Your task to perform on an android device: toggle notifications settings in the gmail app Image 0: 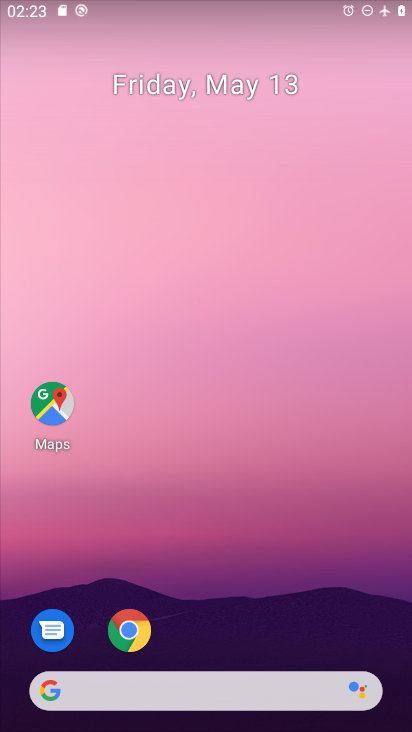
Step 0: drag from (290, 716) to (311, 170)
Your task to perform on an android device: toggle notifications settings in the gmail app Image 1: 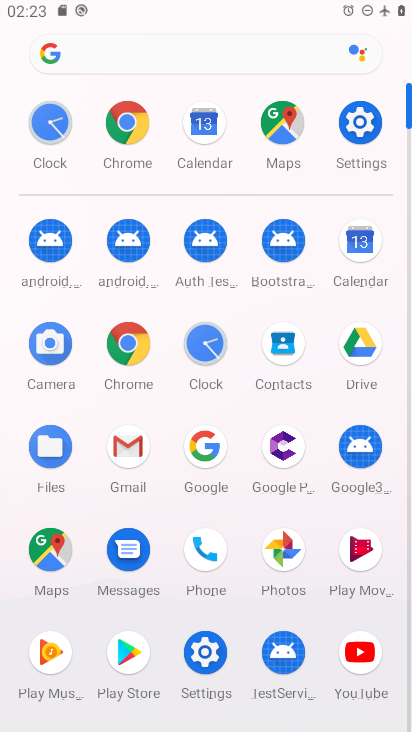
Step 1: click (146, 447)
Your task to perform on an android device: toggle notifications settings in the gmail app Image 2: 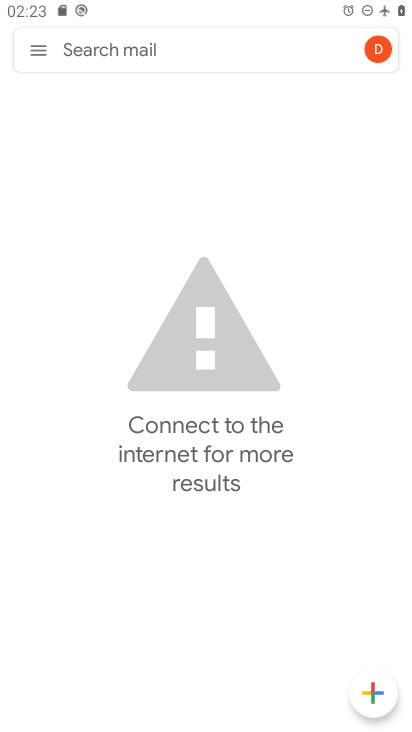
Step 2: click (33, 58)
Your task to perform on an android device: toggle notifications settings in the gmail app Image 3: 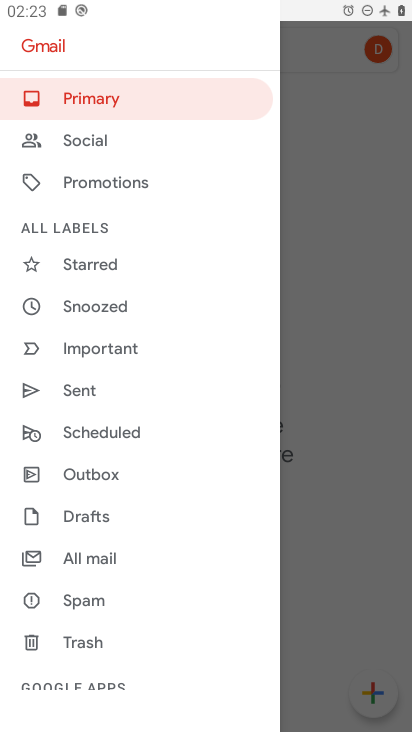
Step 3: drag from (113, 610) to (161, 509)
Your task to perform on an android device: toggle notifications settings in the gmail app Image 4: 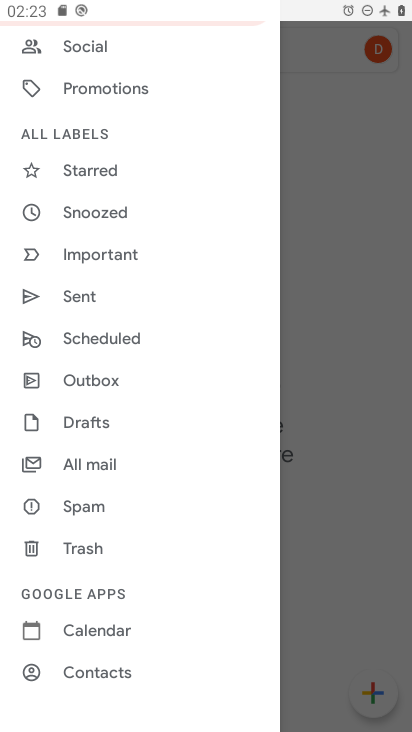
Step 4: drag from (119, 623) to (164, 526)
Your task to perform on an android device: toggle notifications settings in the gmail app Image 5: 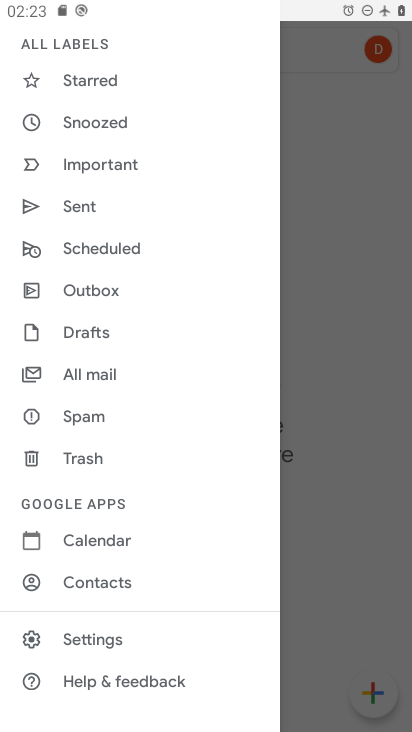
Step 5: click (108, 626)
Your task to perform on an android device: toggle notifications settings in the gmail app Image 6: 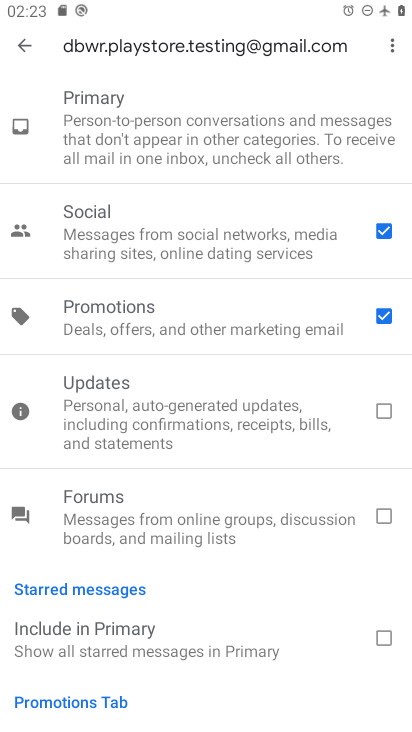
Step 6: click (18, 52)
Your task to perform on an android device: toggle notifications settings in the gmail app Image 7: 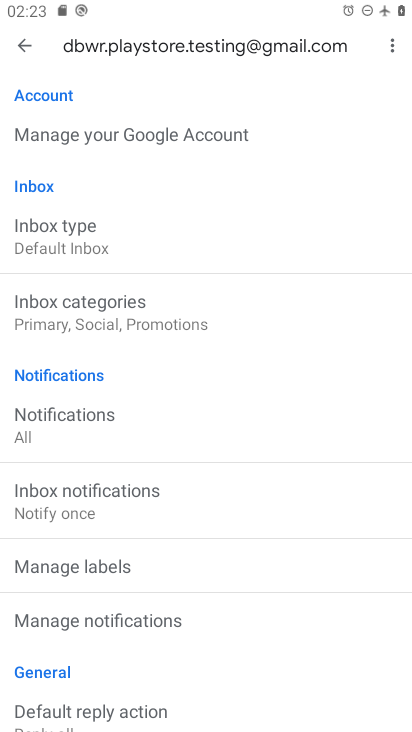
Step 7: click (104, 416)
Your task to perform on an android device: toggle notifications settings in the gmail app Image 8: 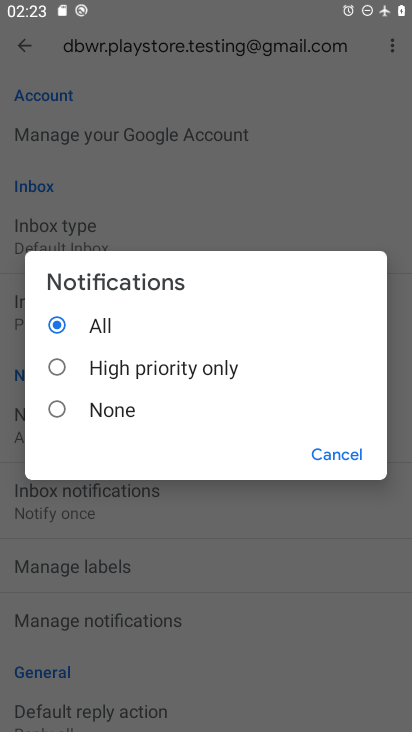
Step 8: task complete